Your task to perform on an android device: Open battery settings Image 0: 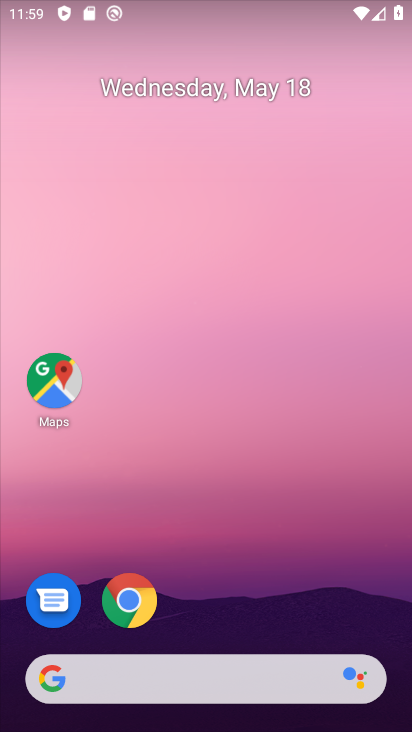
Step 0: drag from (310, 442) to (162, 35)
Your task to perform on an android device: Open battery settings Image 1: 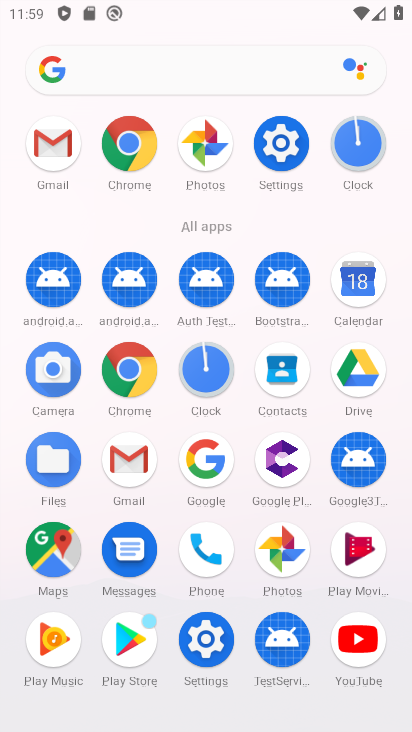
Step 1: click (261, 116)
Your task to perform on an android device: Open battery settings Image 2: 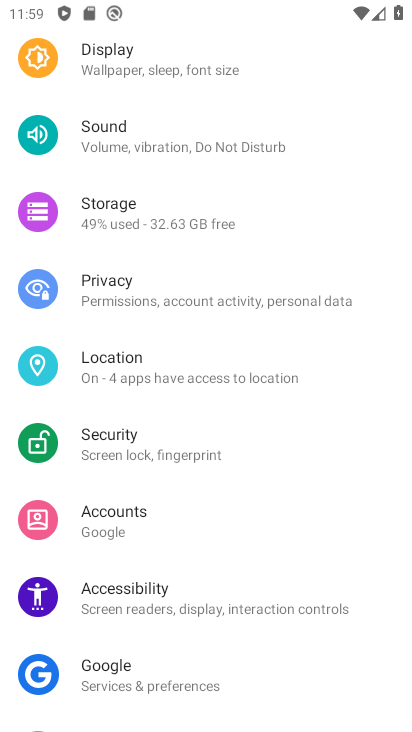
Step 2: drag from (197, 173) to (183, 634)
Your task to perform on an android device: Open battery settings Image 3: 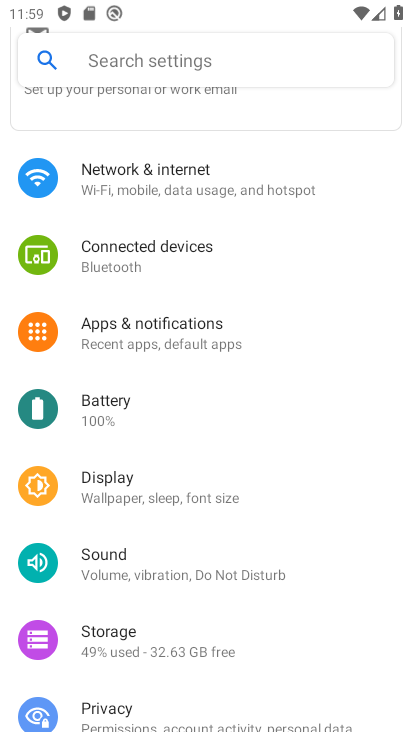
Step 3: click (114, 412)
Your task to perform on an android device: Open battery settings Image 4: 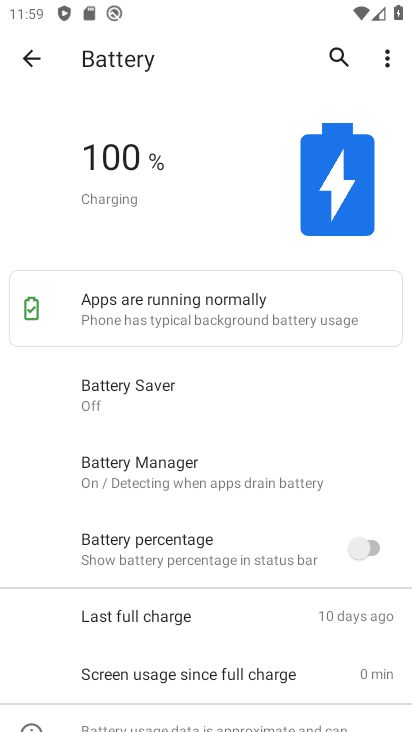
Step 4: task complete